Your task to perform on an android device: Go to Android settings Image 0: 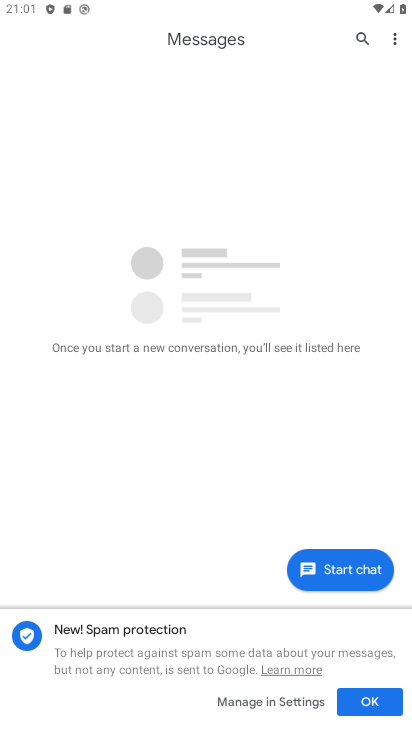
Step 0: press back button
Your task to perform on an android device: Go to Android settings Image 1: 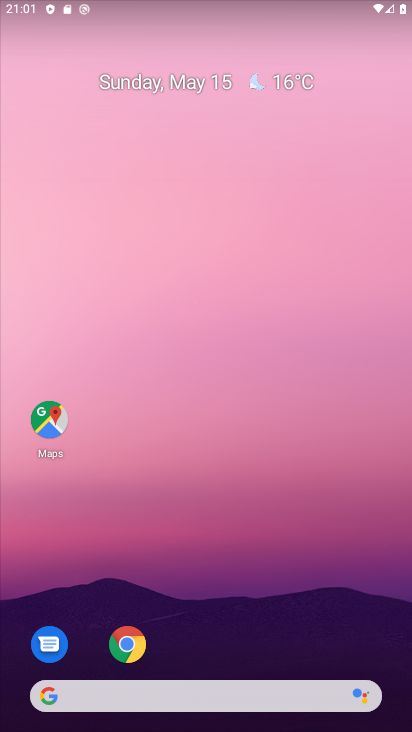
Step 1: drag from (192, 657) to (282, 41)
Your task to perform on an android device: Go to Android settings Image 2: 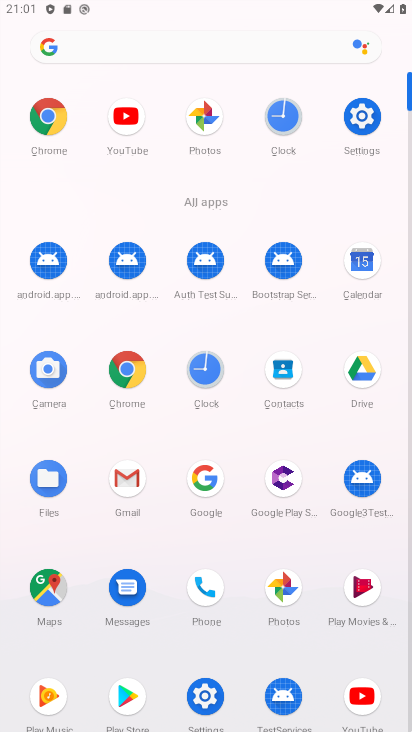
Step 2: click (362, 117)
Your task to perform on an android device: Go to Android settings Image 3: 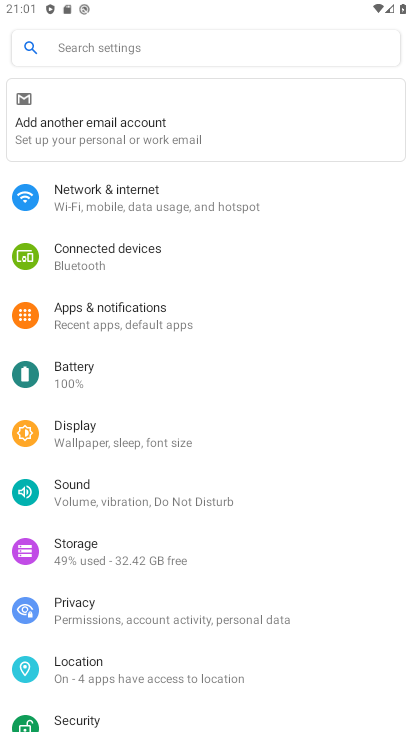
Step 3: drag from (169, 629) to (227, 61)
Your task to perform on an android device: Go to Android settings Image 4: 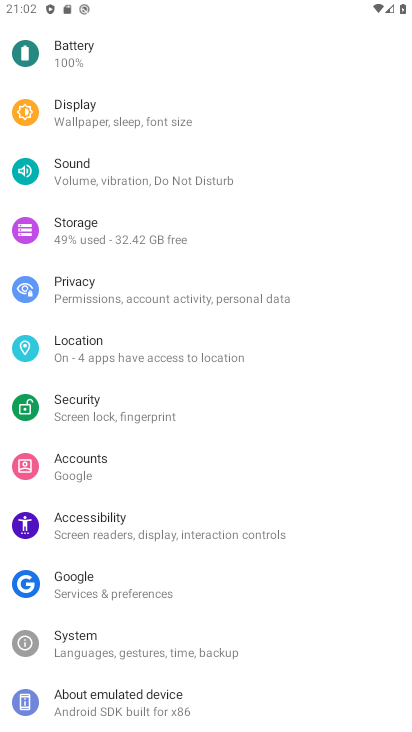
Step 4: click (152, 697)
Your task to perform on an android device: Go to Android settings Image 5: 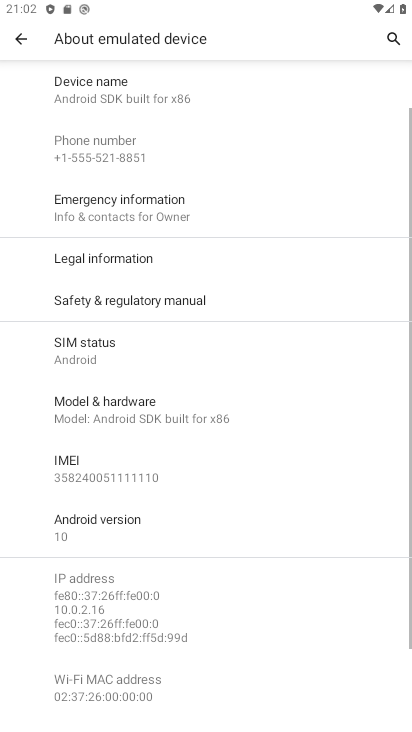
Step 5: click (144, 534)
Your task to perform on an android device: Go to Android settings Image 6: 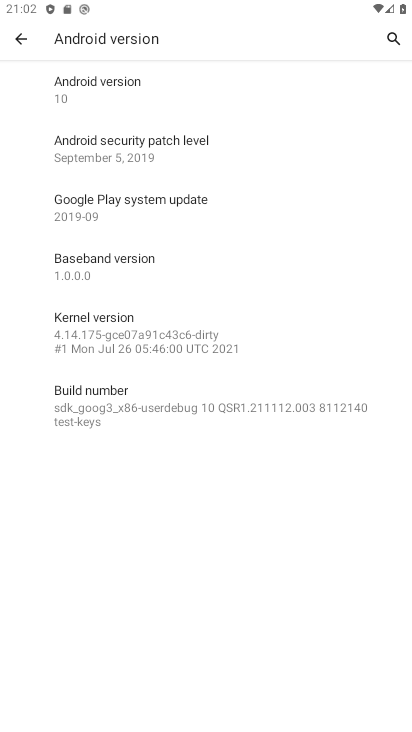
Step 6: task complete